Your task to perform on an android device: Search for vegetarian restaurants on Maps Image 0: 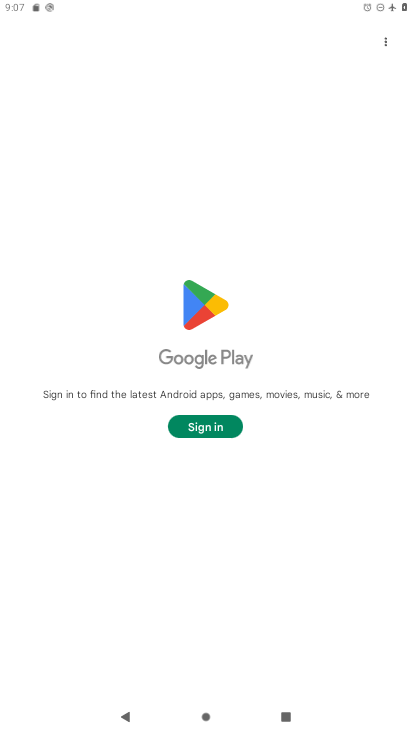
Step 0: press back button
Your task to perform on an android device: Search for vegetarian restaurants on Maps Image 1: 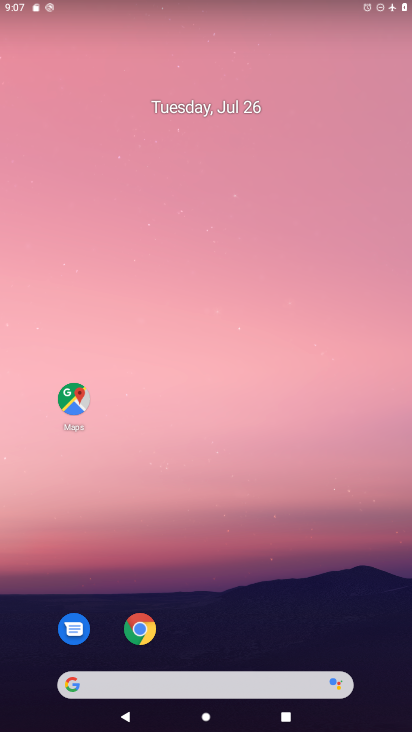
Step 1: drag from (226, 662) to (226, 71)
Your task to perform on an android device: Search for vegetarian restaurants on Maps Image 2: 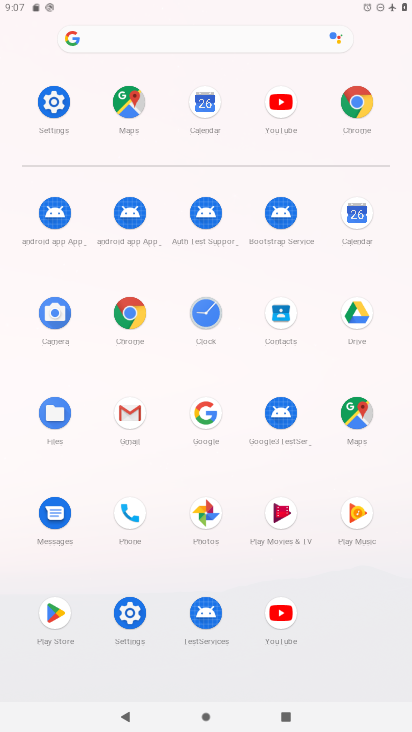
Step 2: click (354, 403)
Your task to perform on an android device: Search for vegetarian restaurants on Maps Image 3: 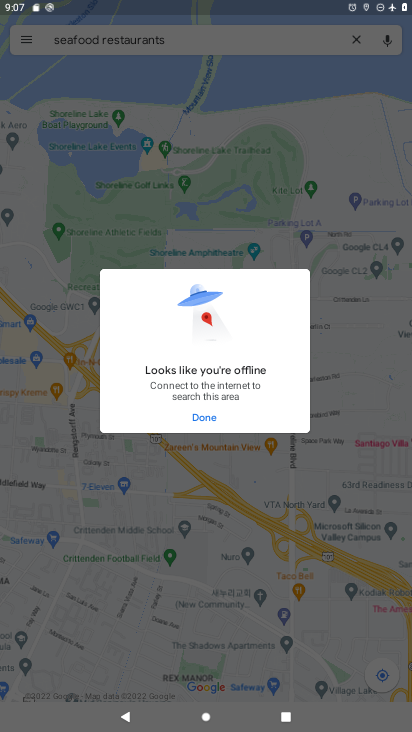
Step 3: click (196, 425)
Your task to perform on an android device: Search for vegetarian restaurants on Maps Image 4: 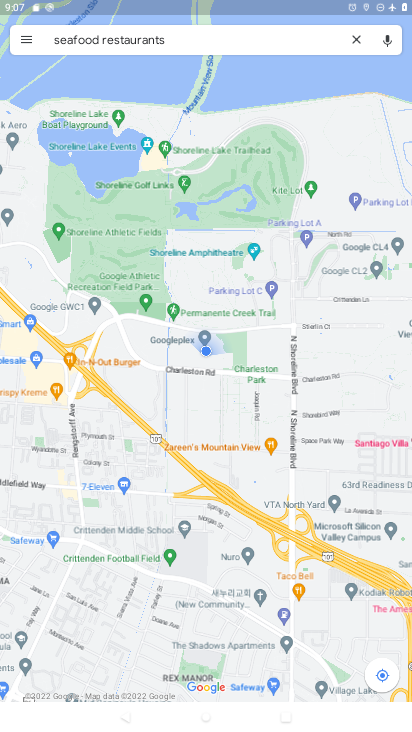
Step 4: click (358, 42)
Your task to perform on an android device: Search for vegetarian restaurants on Maps Image 5: 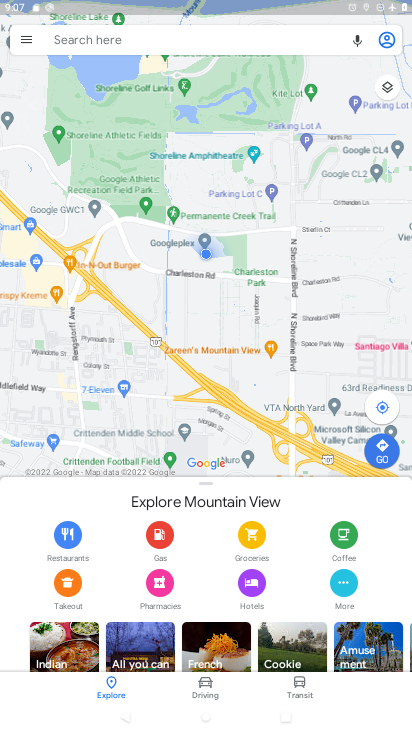
Step 5: click (142, 49)
Your task to perform on an android device: Search for vegetarian restaurants on Maps Image 6: 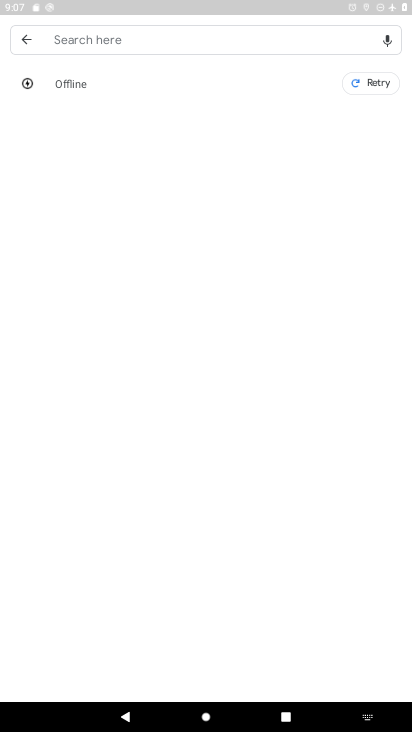
Step 6: type "vegetarian restaurants"
Your task to perform on an android device: Search for vegetarian restaurants on Maps Image 7: 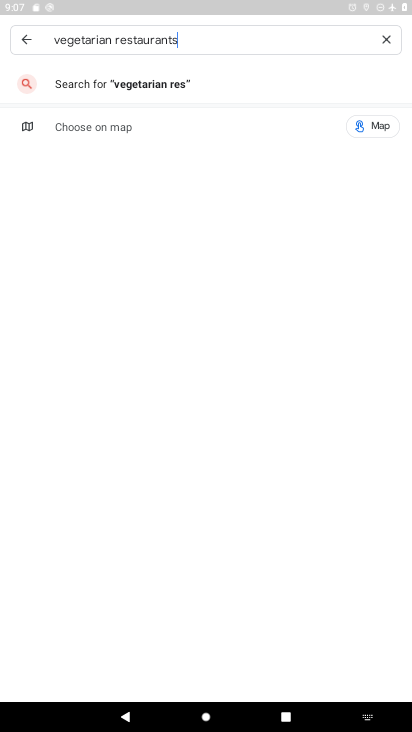
Step 7: type ""
Your task to perform on an android device: Search for vegetarian restaurants on Maps Image 8: 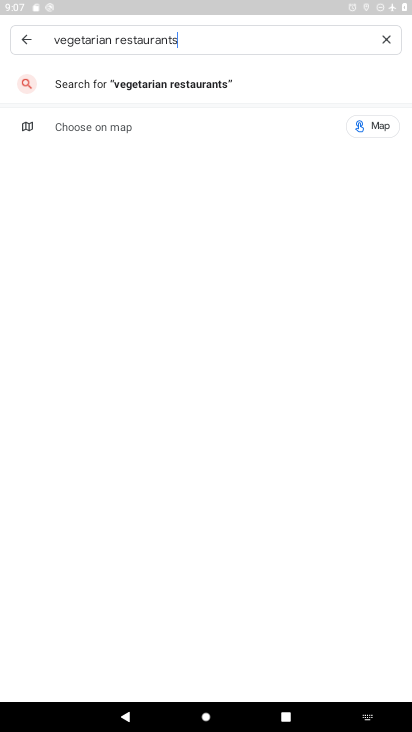
Step 8: click (142, 81)
Your task to perform on an android device: Search for vegetarian restaurants on Maps Image 9: 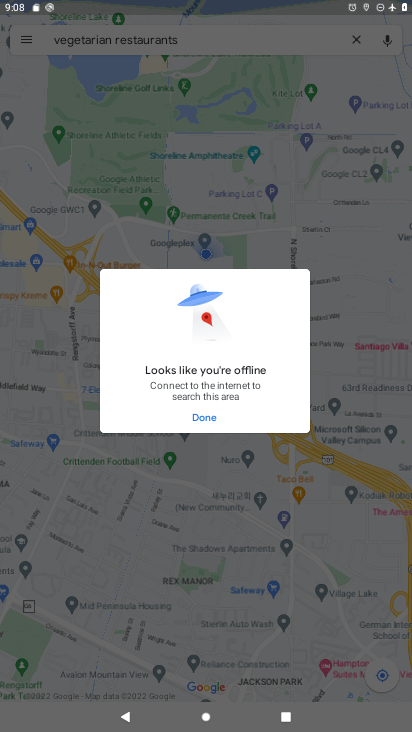
Step 9: task complete